Your task to perform on an android device: Show me the alarms in the clock app Image 0: 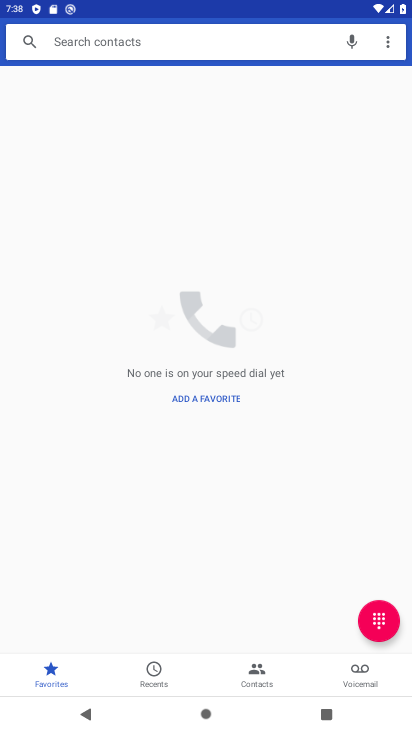
Step 0: press home button
Your task to perform on an android device: Show me the alarms in the clock app Image 1: 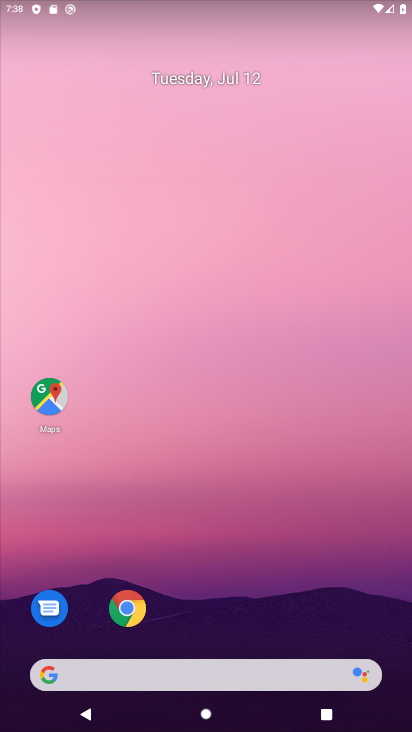
Step 1: drag from (211, 648) to (214, 169)
Your task to perform on an android device: Show me the alarms in the clock app Image 2: 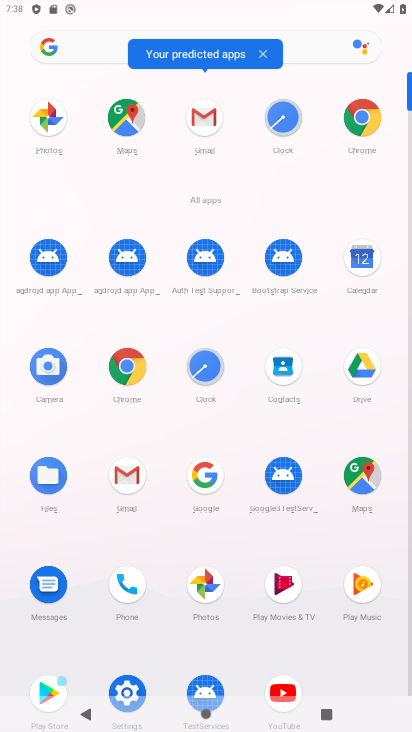
Step 2: click (198, 369)
Your task to perform on an android device: Show me the alarms in the clock app Image 3: 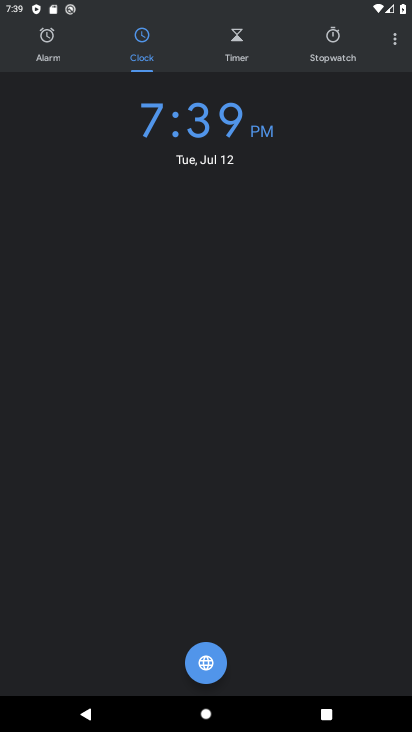
Step 3: click (60, 43)
Your task to perform on an android device: Show me the alarms in the clock app Image 4: 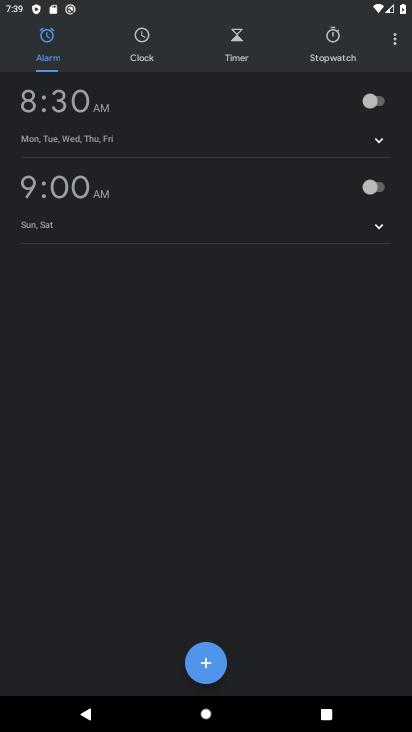
Step 4: task complete